Your task to perform on an android device: toggle location history Image 0: 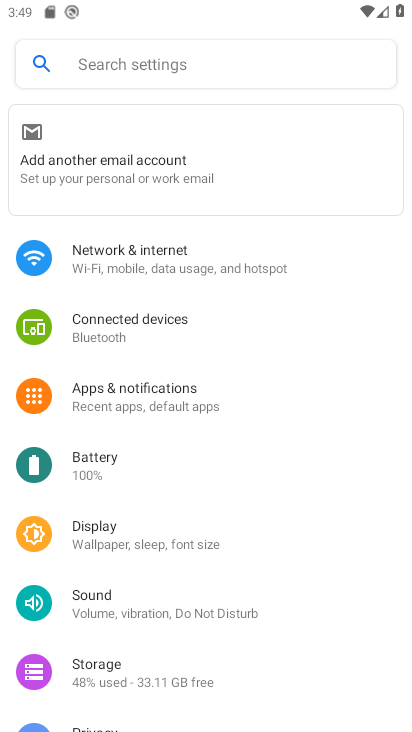
Step 0: drag from (140, 585) to (111, 101)
Your task to perform on an android device: toggle location history Image 1: 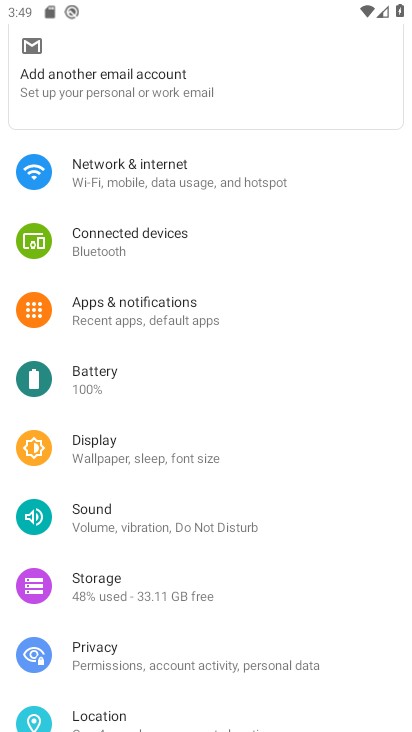
Step 1: drag from (129, 653) to (166, 266)
Your task to perform on an android device: toggle location history Image 2: 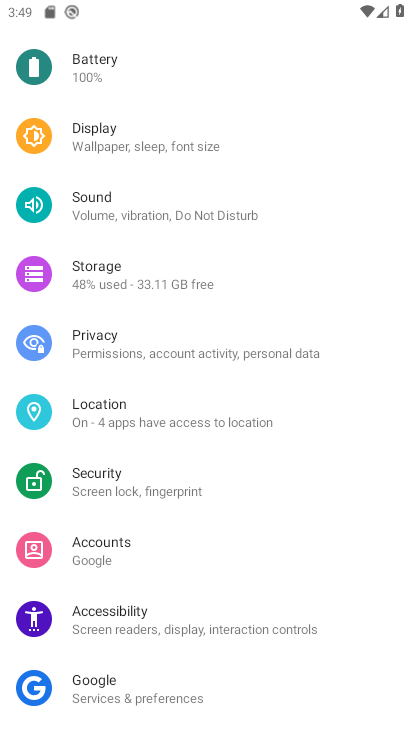
Step 2: click (124, 424)
Your task to perform on an android device: toggle location history Image 3: 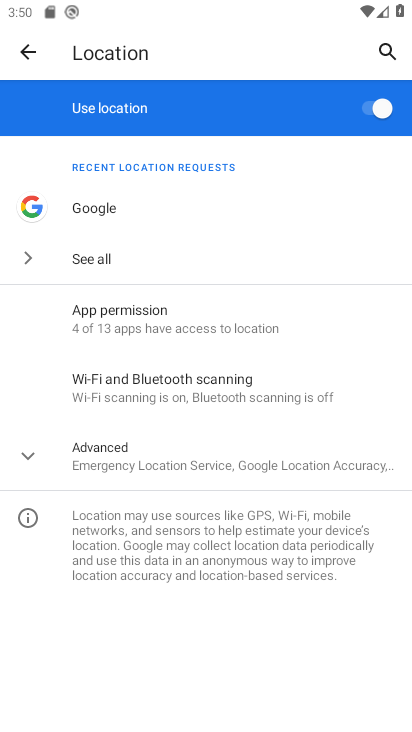
Step 3: click (108, 456)
Your task to perform on an android device: toggle location history Image 4: 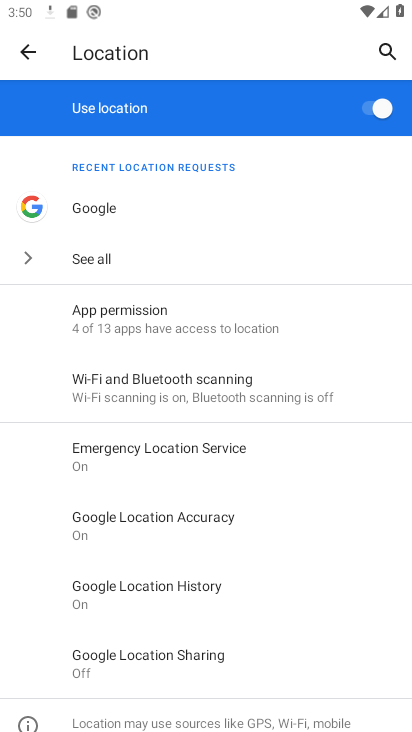
Step 4: click (151, 596)
Your task to perform on an android device: toggle location history Image 5: 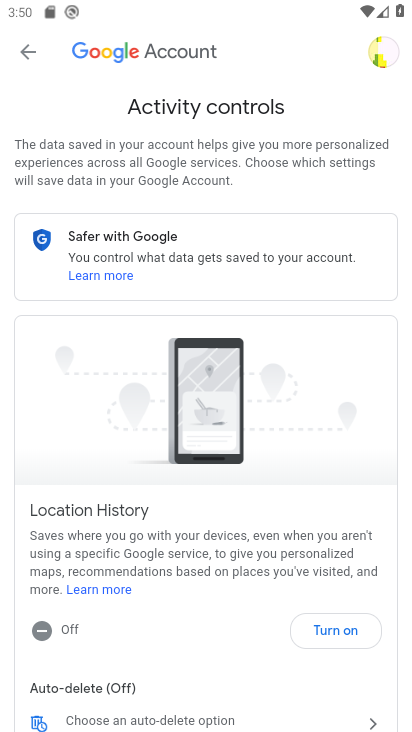
Step 5: click (336, 641)
Your task to perform on an android device: toggle location history Image 6: 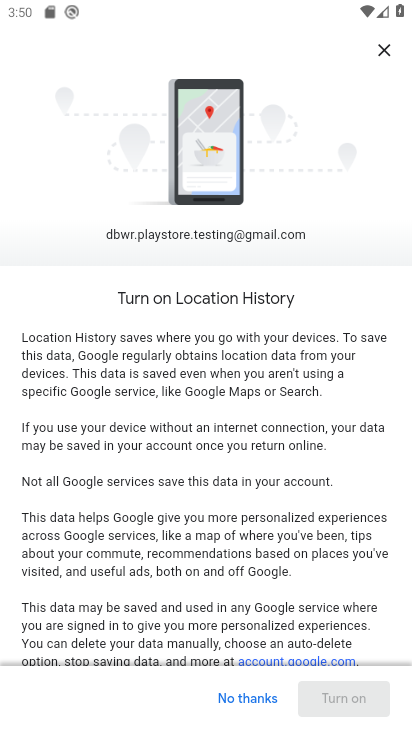
Step 6: drag from (218, 572) to (250, 155)
Your task to perform on an android device: toggle location history Image 7: 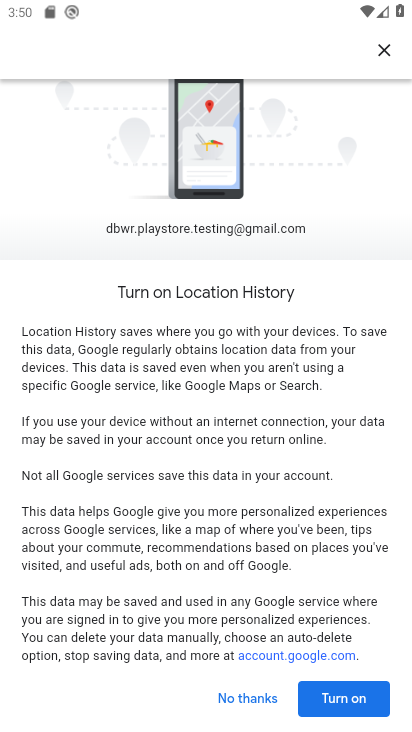
Step 7: click (332, 693)
Your task to perform on an android device: toggle location history Image 8: 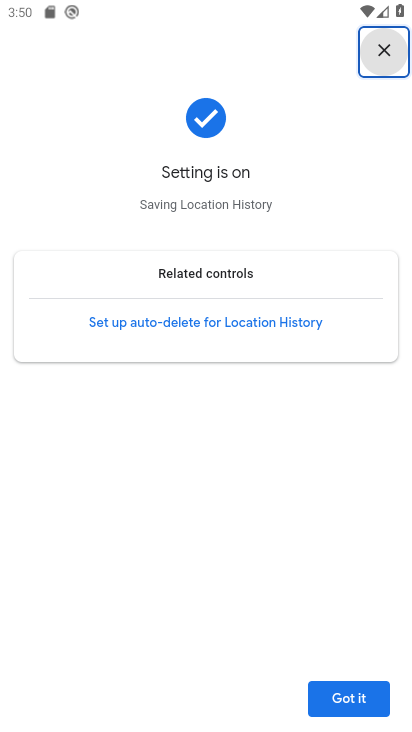
Step 8: click (365, 699)
Your task to perform on an android device: toggle location history Image 9: 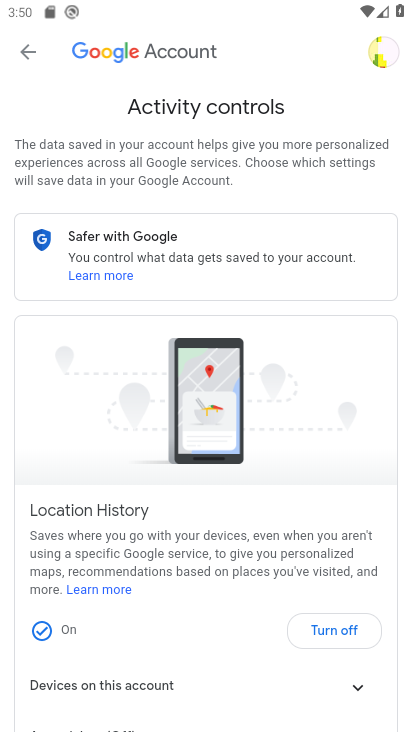
Step 9: task complete